Your task to perform on an android device: change timer sound Image 0: 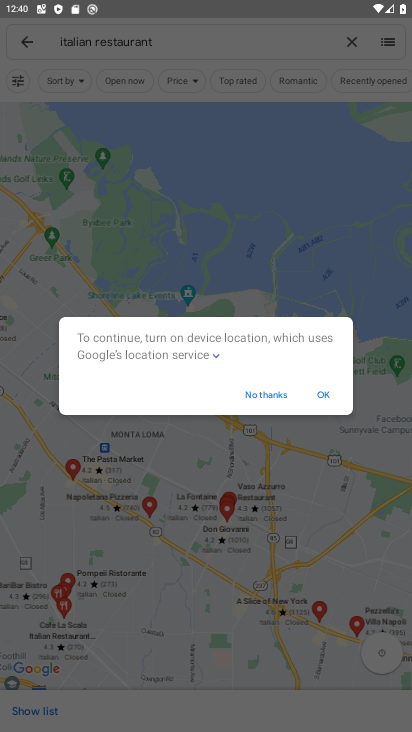
Step 0: press home button
Your task to perform on an android device: change timer sound Image 1: 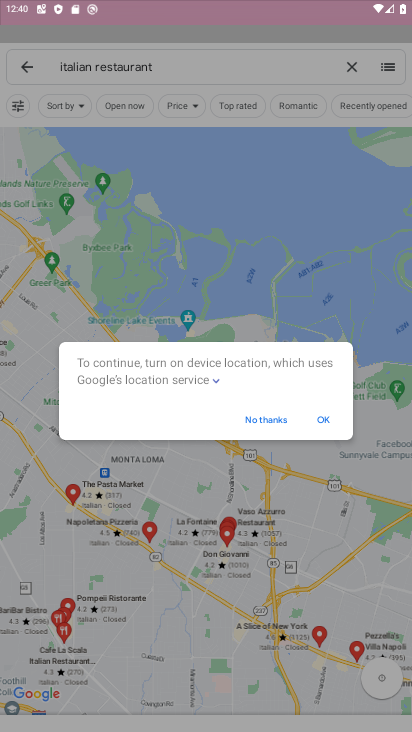
Step 1: drag from (347, 652) to (303, 53)
Your task to perform on an android device: change timer sound Image 2: 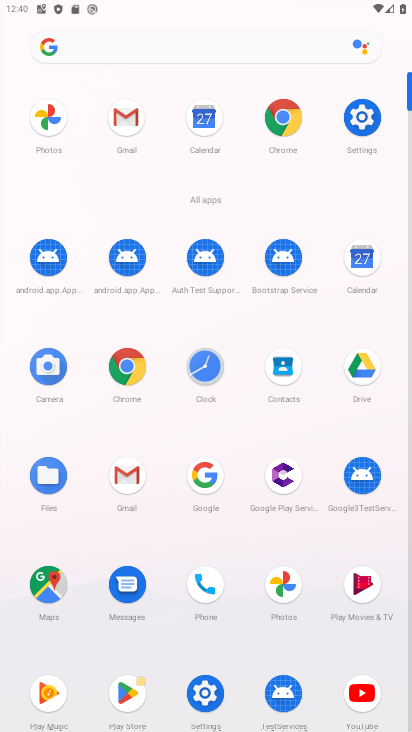
Step 2: drag from (227, 595) to (219, 330)
Your task to perform on an android device: change timer sound Image 3: 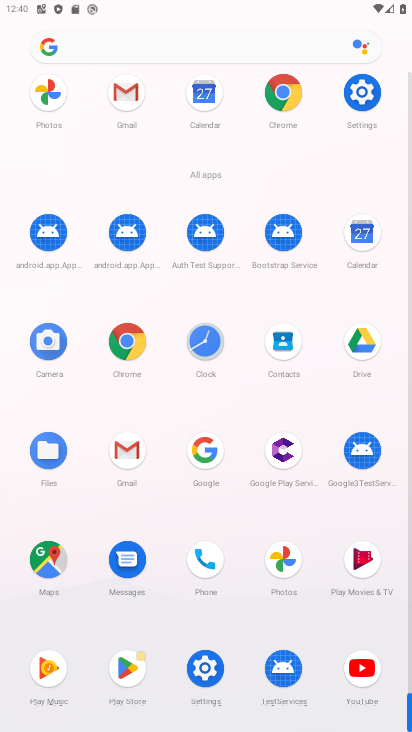
Step 3: click (216, 345)
Your task to perform on an android device: change timer sound Image 4: 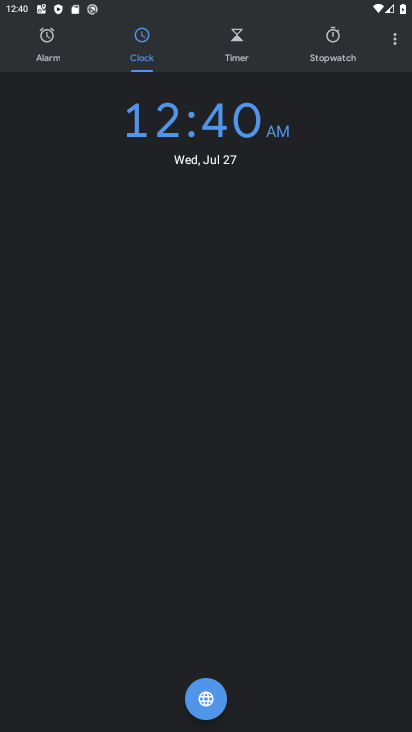
Step 4: click (397, 41)
Your task to perform on an android device: change timer sound Image 5: 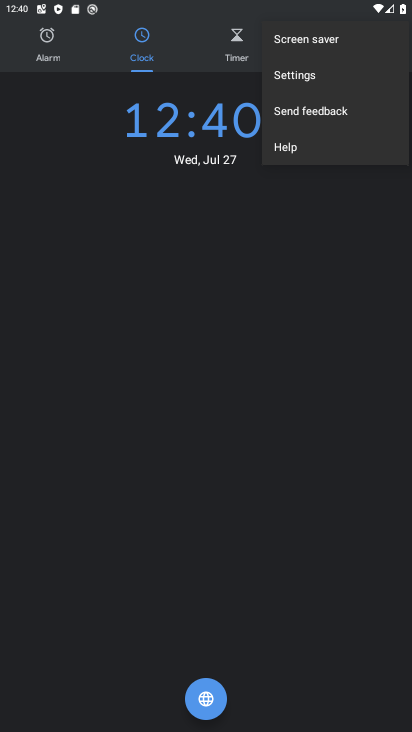
Step 5: click (320, 74)
Your task to perform on an android device: change timer sound Image 6: 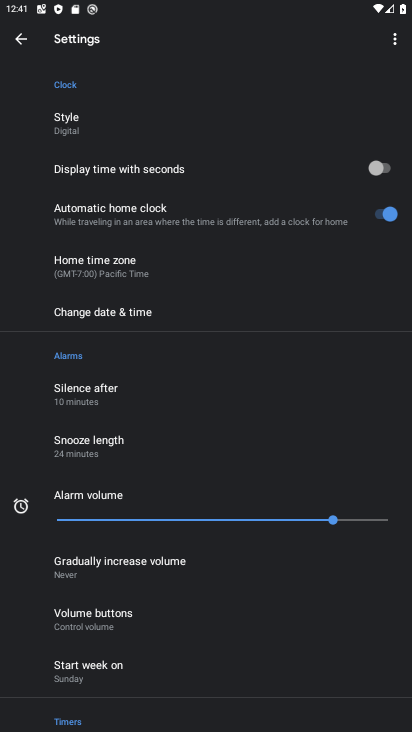
Step 6: drag from (159, 625) to (123, 1)
Your task to perform on an android device: change timer sound Image 7: 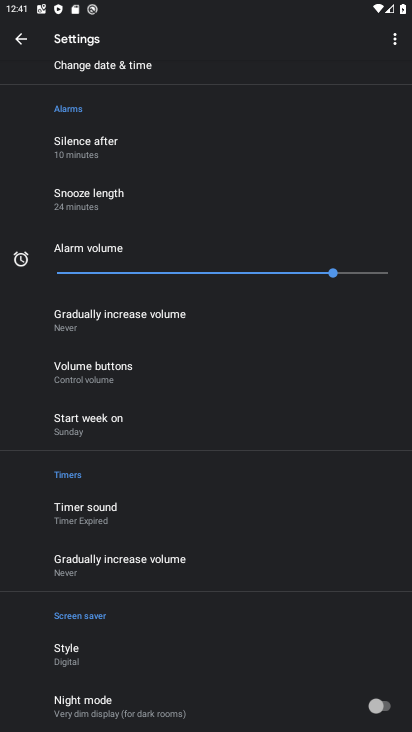
Step 7: drag from (147, 514) to (135, 358)
Your task to perform on an android device: change timer sound Image 8: 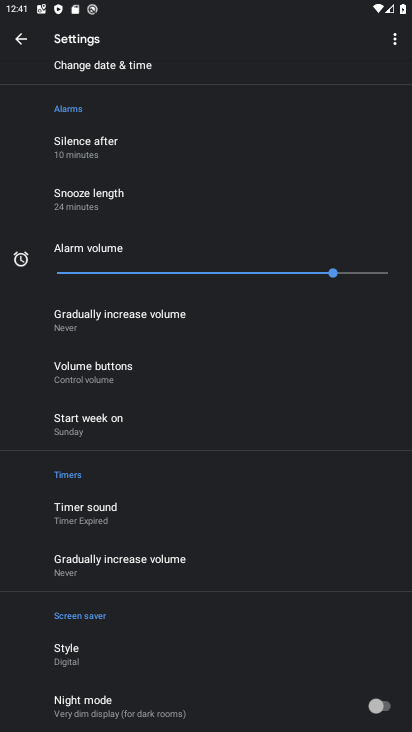
Step 8: click (117, 503)
Your task to perform on an android device: change timer sound Image 9: 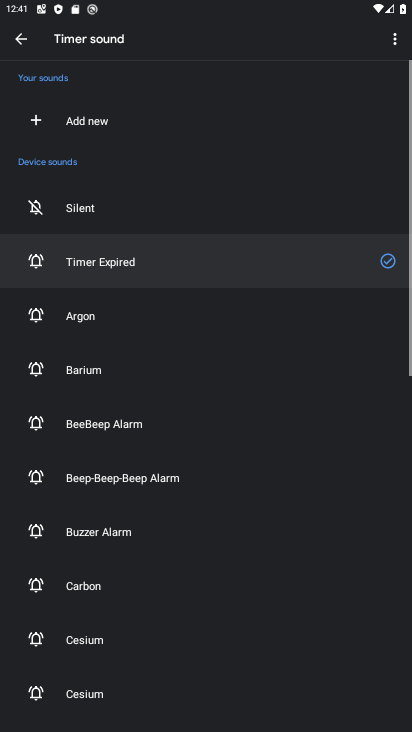
Step 9: click (123, 426)
Your task to perform on an android device: change timer sound Image 10: 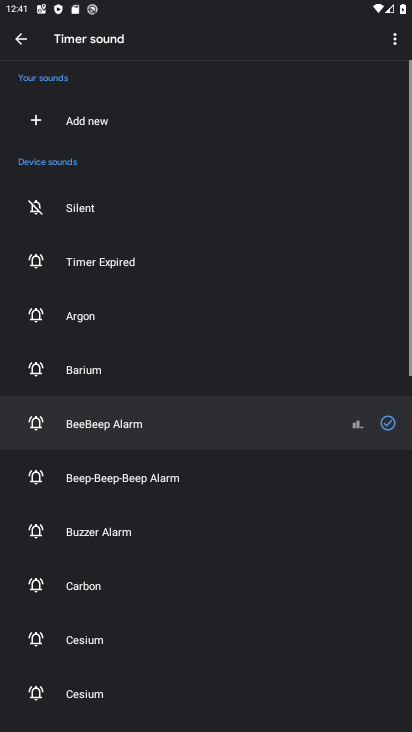
Step 10: task complete